Your task to perform on an android device: Open calendar and show me the fourth week of next month Image 0: 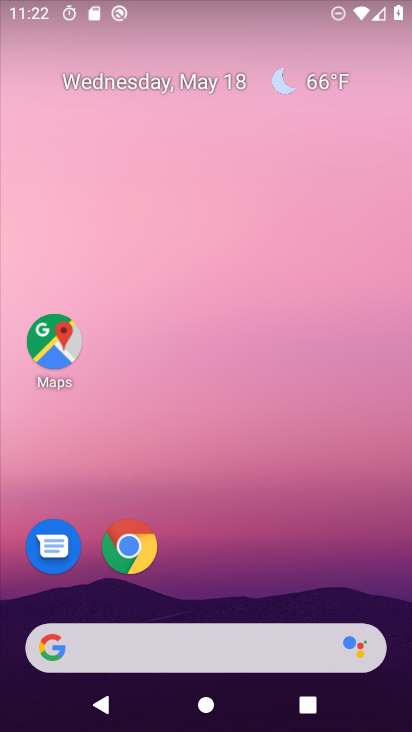
Step 0: click (123, 81)
Your task to perform on an android device: Open calendar and show me the fourth week of next month Image 1: 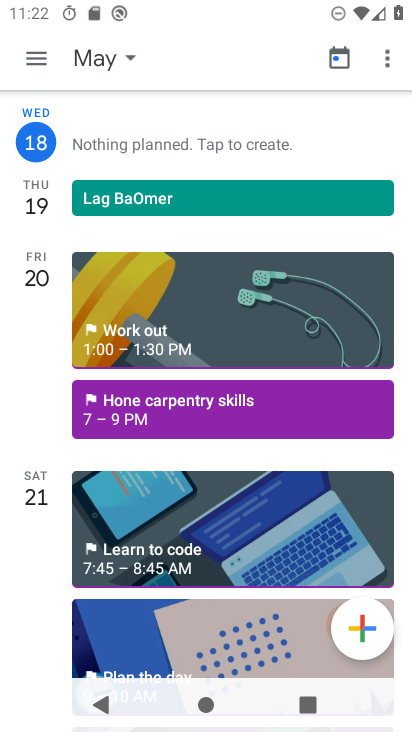
Step 1: click (109, 65)
Your task to perform on an android device: Open calendar and show me the fourth week of next month Image 2: 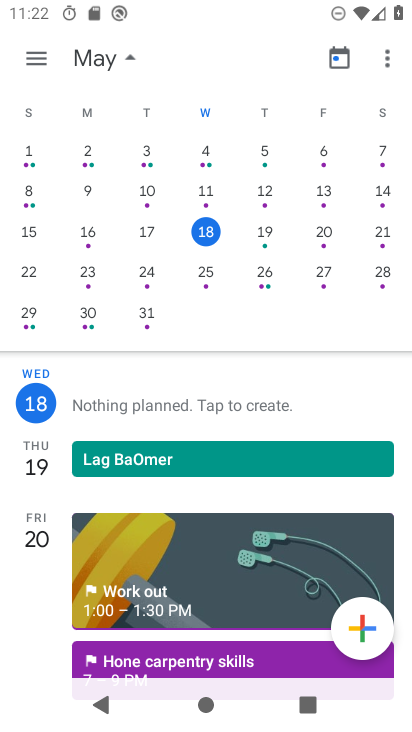
Step 2: drag from (356, 322) to (22, 308)
Your task to perform on an android device: Open calendar and show me the fourth week of next month Image 3: 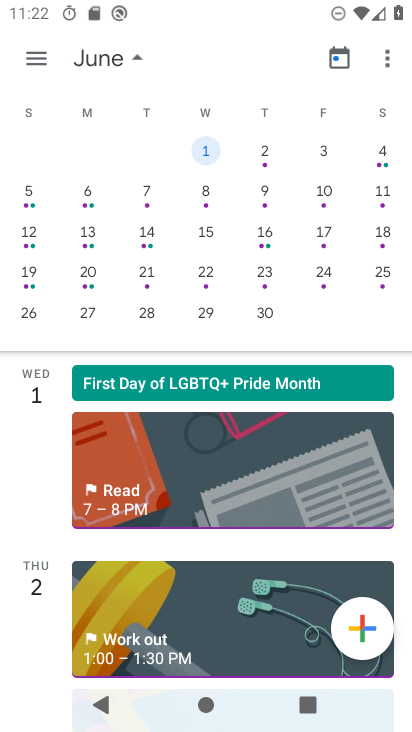
Step 3: click (205, 263)
Your task to perform on an android device: Open calendar and show me the fourth week of next month Image 4: 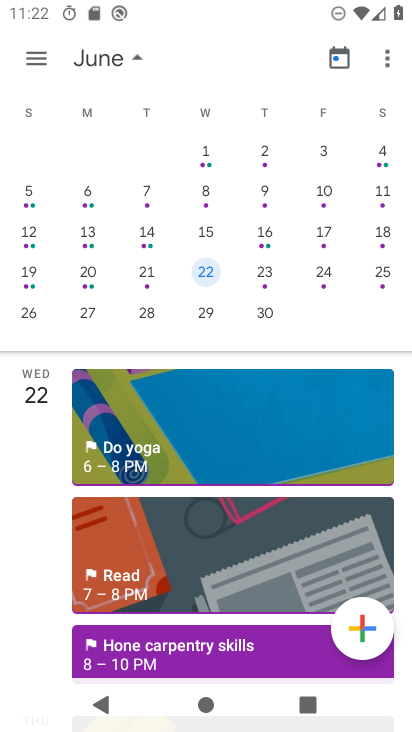
Step 4: task complete